Your task to perform on an android device: turn pop-ups off in chrome Image 0: 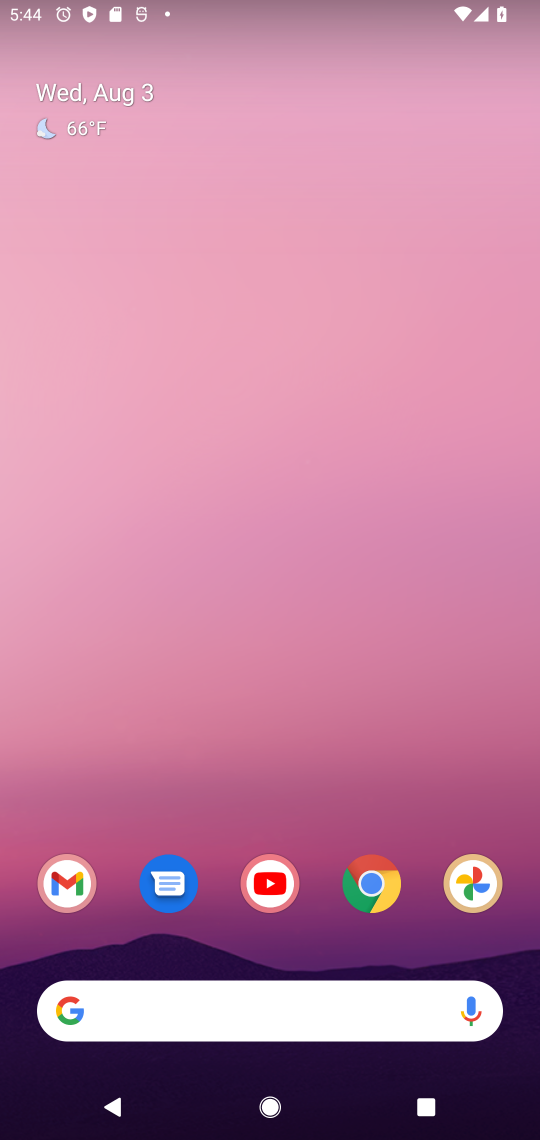
Step 0: click (370, 890)
Your task to perform on an android device: turn pop-ups off in chrome Image 1: 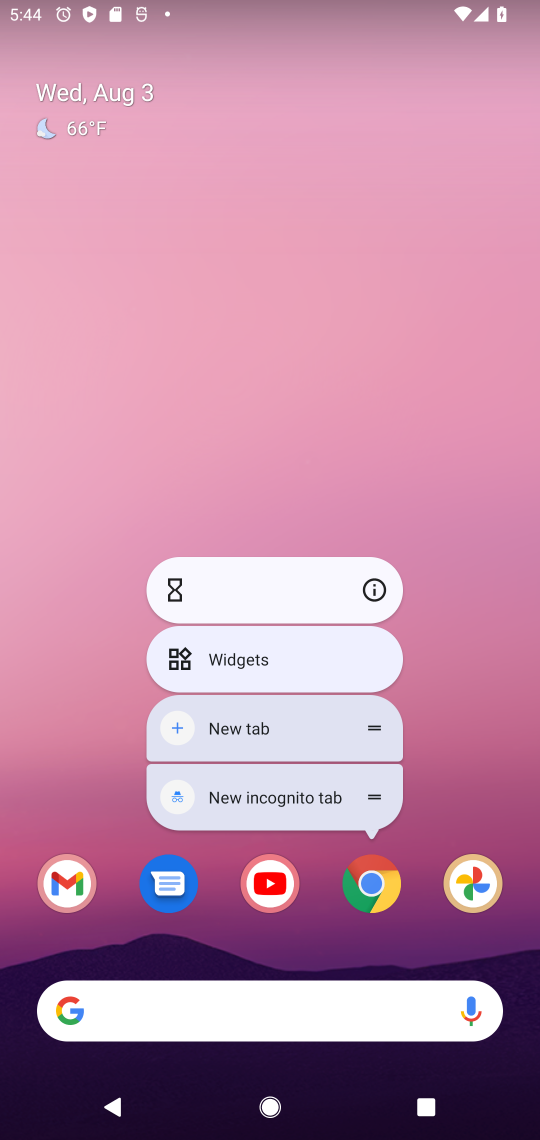
Step 1: click (370, 890)
Your task to perform on an android device: turn pop-ups off in chrome Image 2: 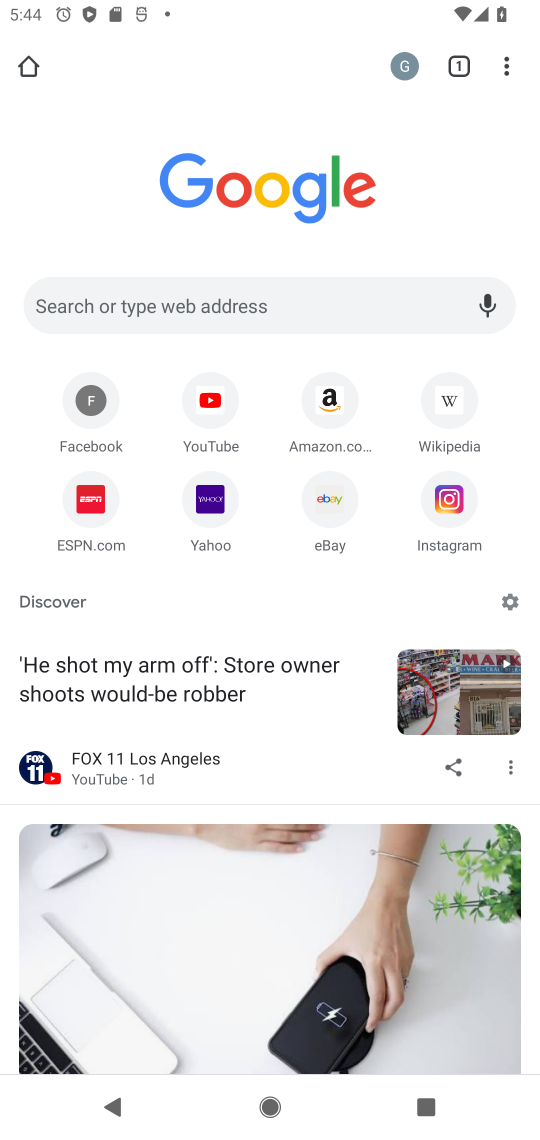
Step 2: click (502, 62)
Your task to perform on an android device: turn pop-ups off in chrome Image 3: 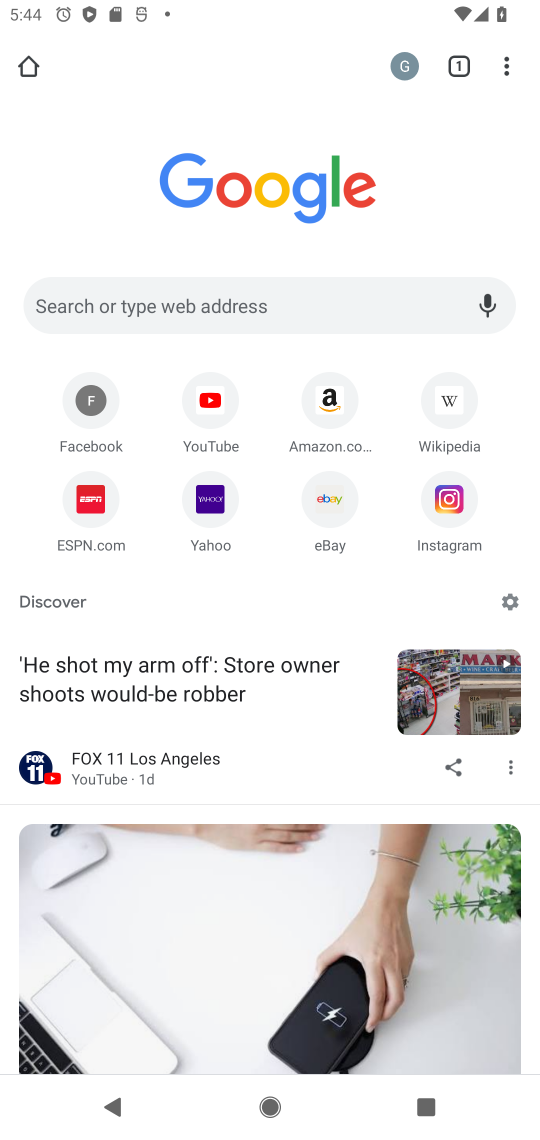
Step 3: click (505, 68)
Your task to perform on an android device: turn pop-ups off in chrome Image 4: 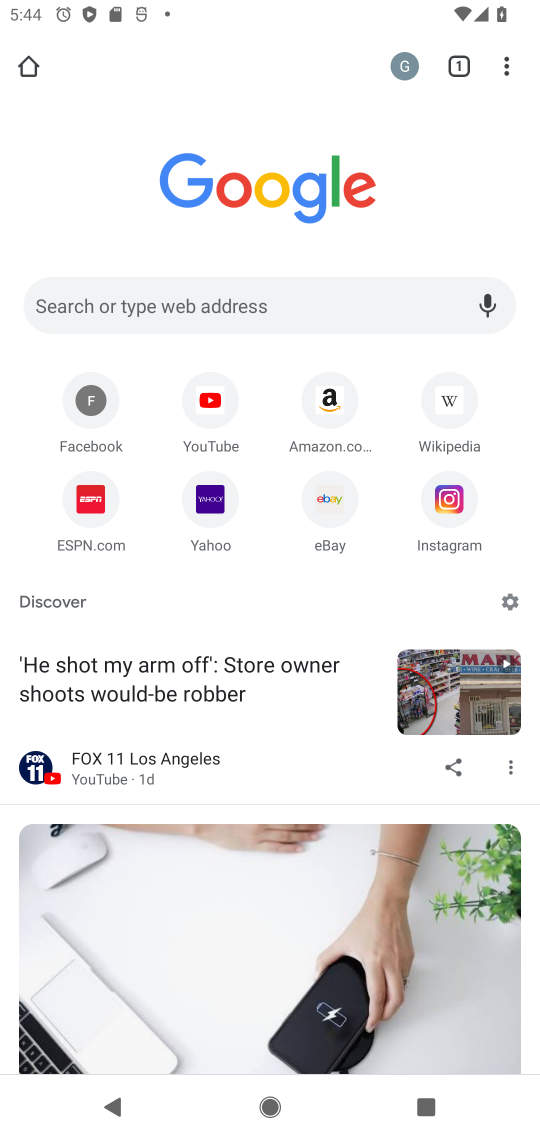
Step 4: click (516, 66)
Your task to perform on an android device: turn pop-ups off in chrome Image 5: 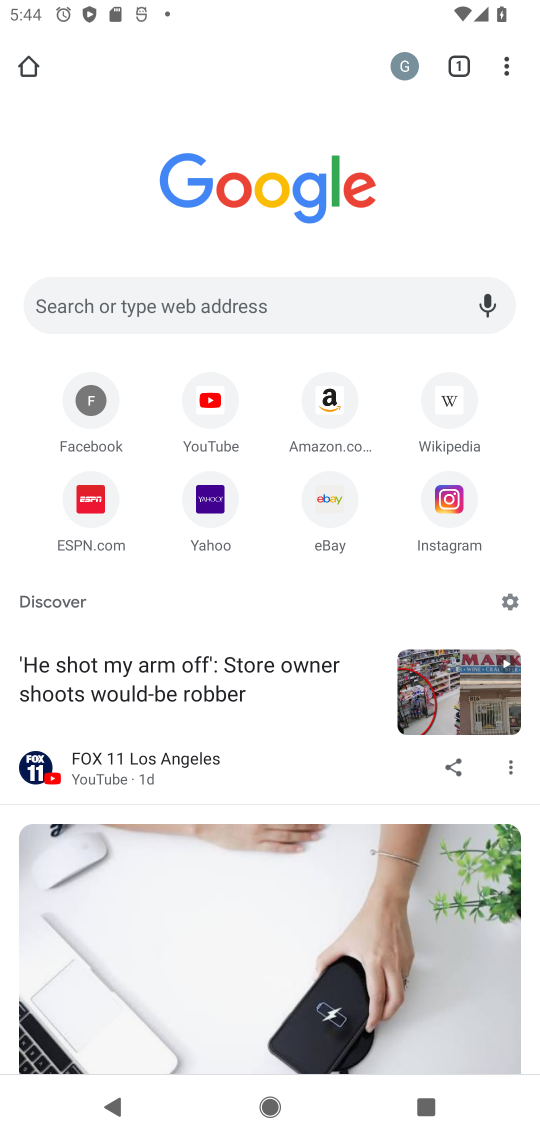
Step 5: click (513, 69)
Your task to perform on an android device: turn pop-ups off in chrome Image 6: 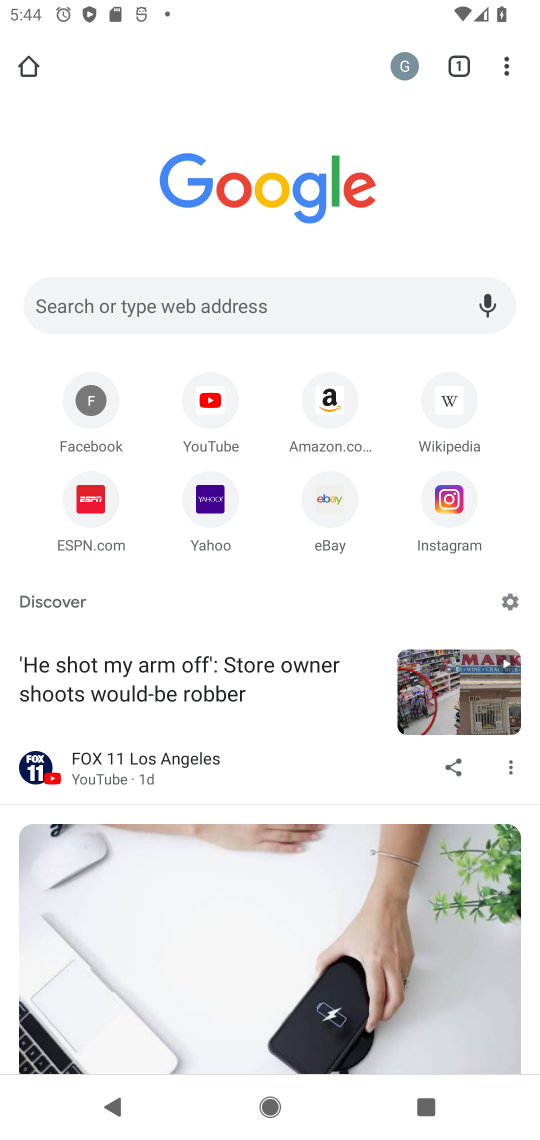
Step 6: click (508, 58)
Your task to perform on an android device: turn pop-ups off in chrome Image 7: 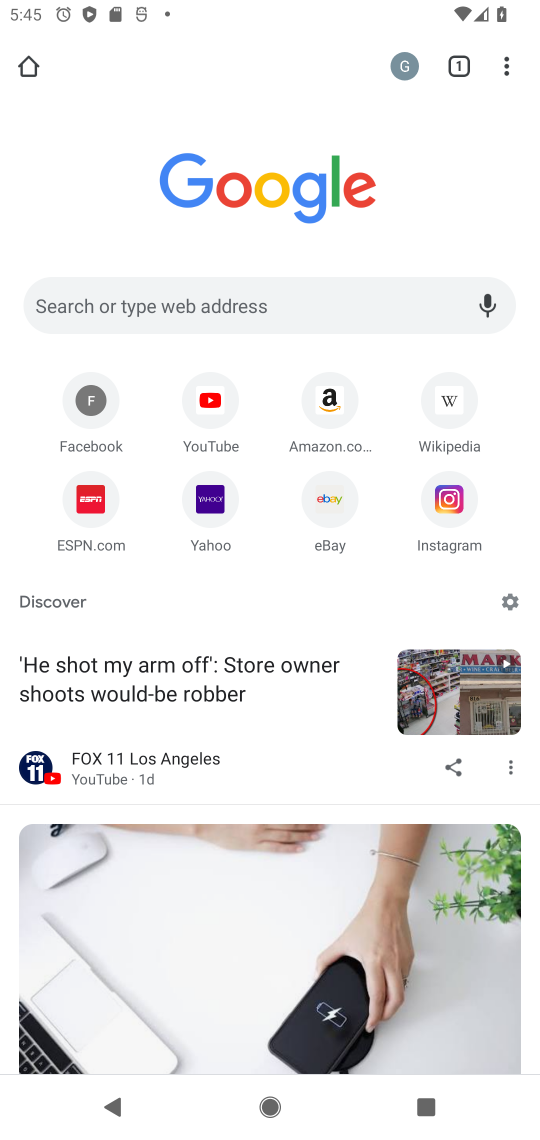
Step 7: click (511, 61)
Your task to perform on an android device: turn pop-ups off in chrome Image 8: 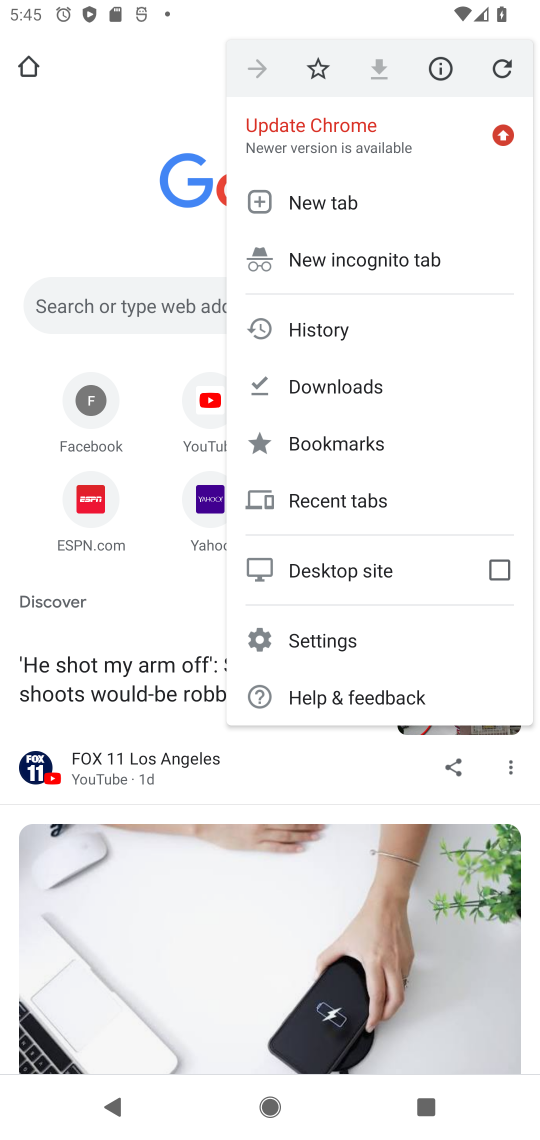
Step 8: click (339, 628)
Your task to perform on an android device: turn pop-ups off in chrome Image 9: 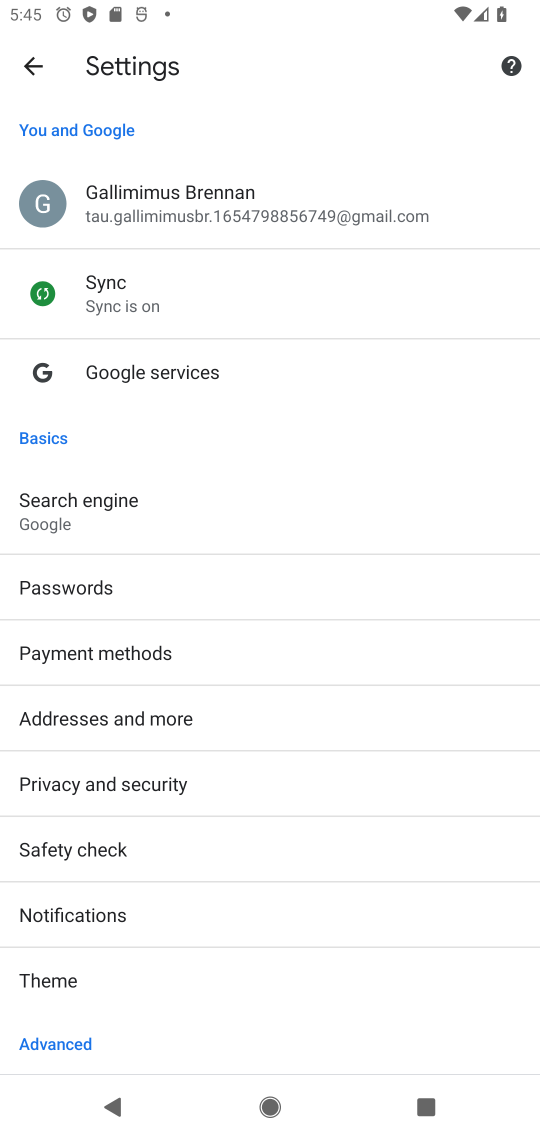
Step 9: drag from (138, 989) to (274, 248)
Your task to perform on an android device: turn pop-ups off in chrome Image 10: 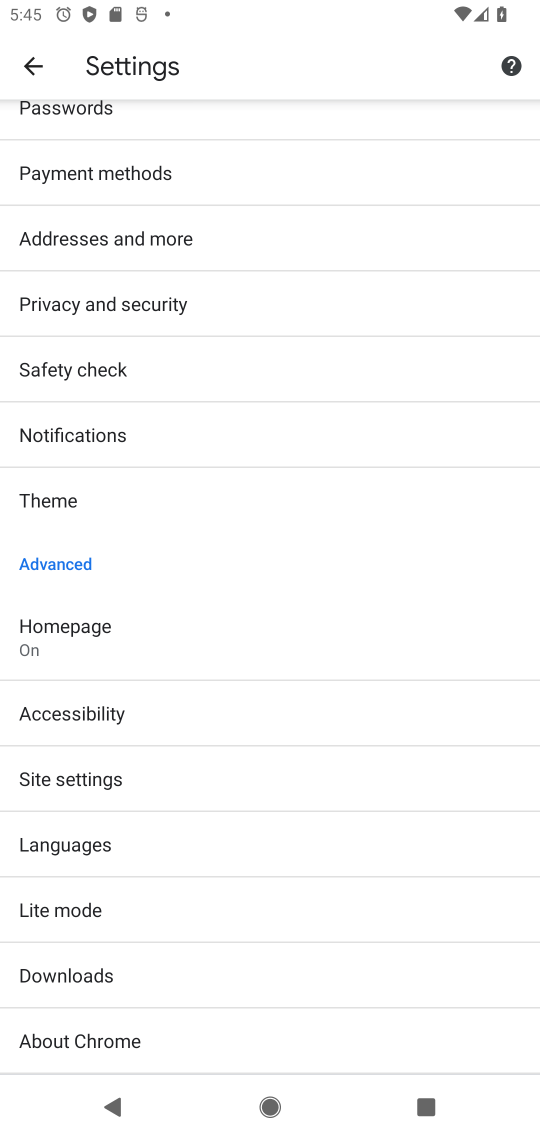
Step 10: click (43, 888)
Your task to perform on an android device: turn pop-ups off in chrome Image 11: 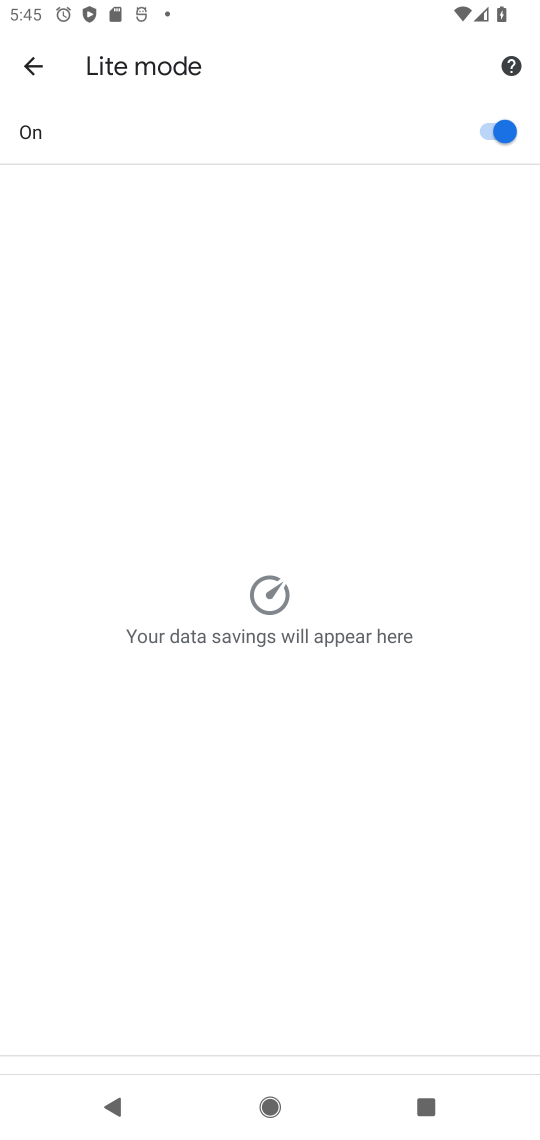
Step 11: click (37, 64)
Your task to perform on an android device: turn pop-ups off in chrome Image 12: 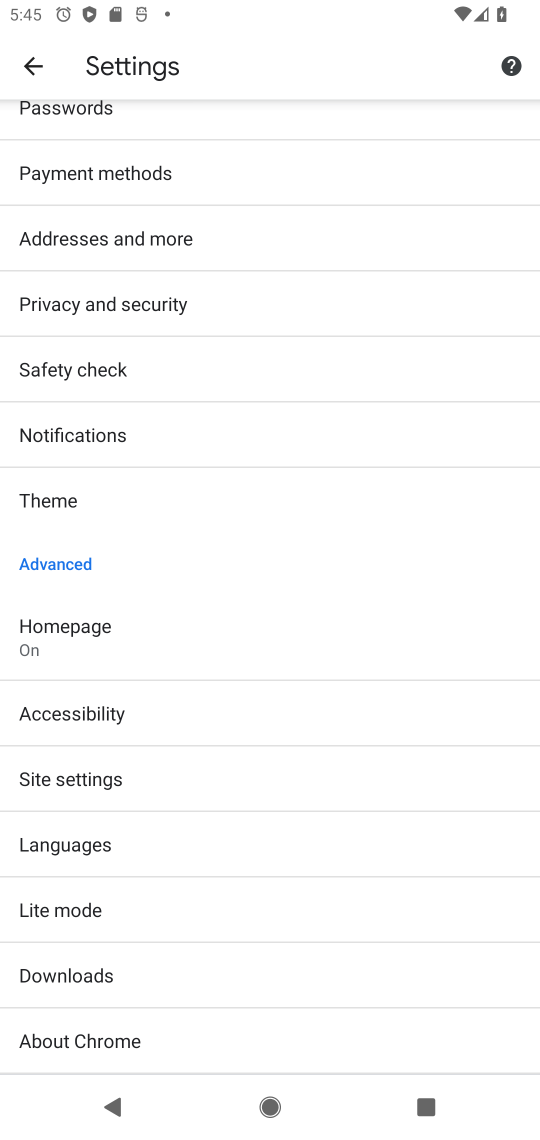
Step 12: click (80, 793)
Your task to perform on an android device: turn pop-ups off in chrome Image 13: 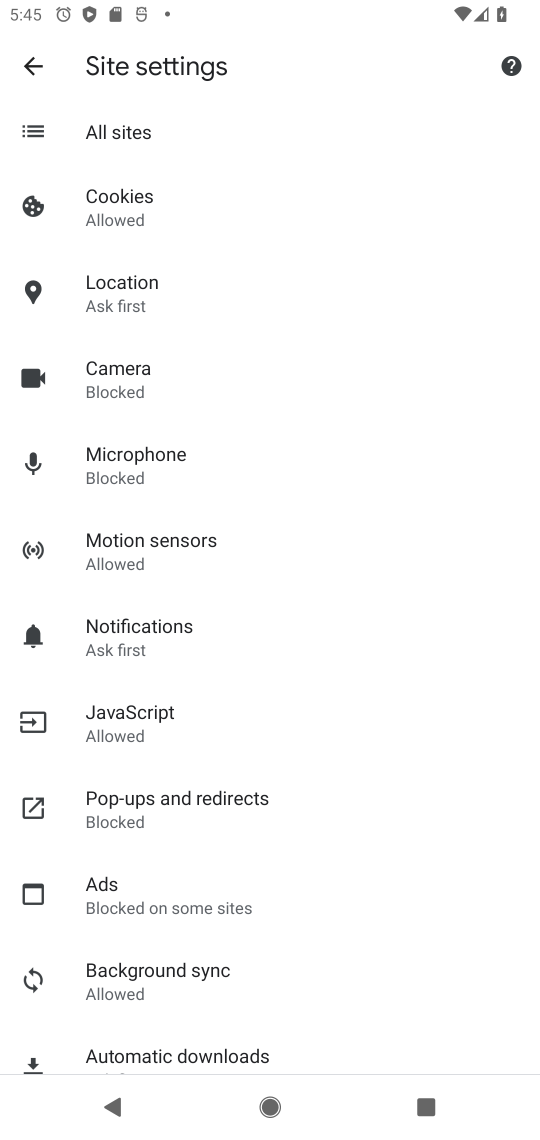
Step 13: click (148, 818)
Your task to perform on an android device: turn pop-ups off in chrome Image 14: 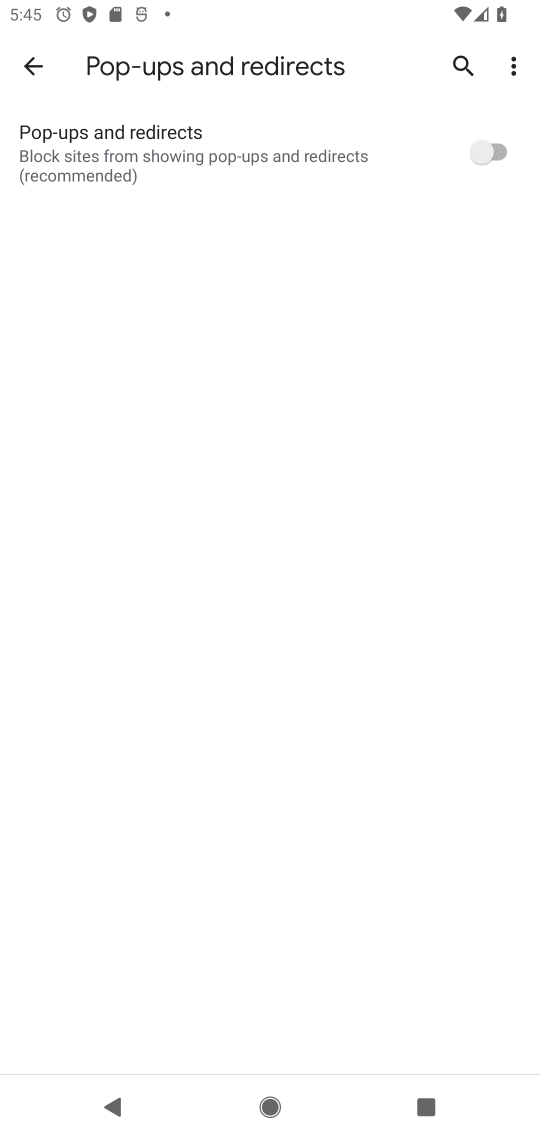
Step 14: task complete